Your task to perform on an android device: Go to Maps Image 0: 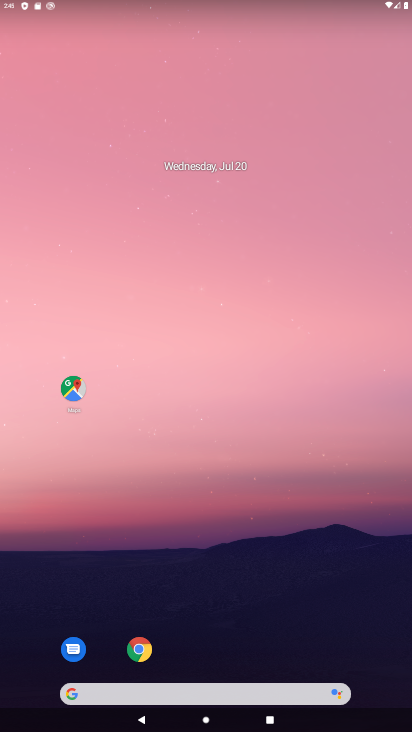
Step 0: click (70, 390)
Your task to perform on an android device: Go to Maps Image 1: 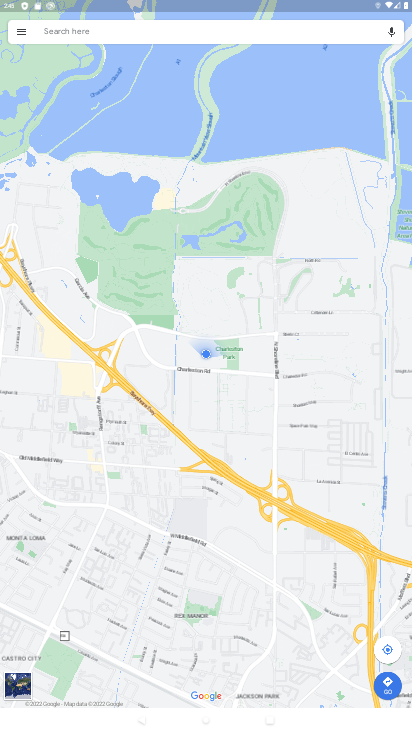
Step 1: task complete